Your task to perform on an android device: turn off notifications in google photos Image 0: 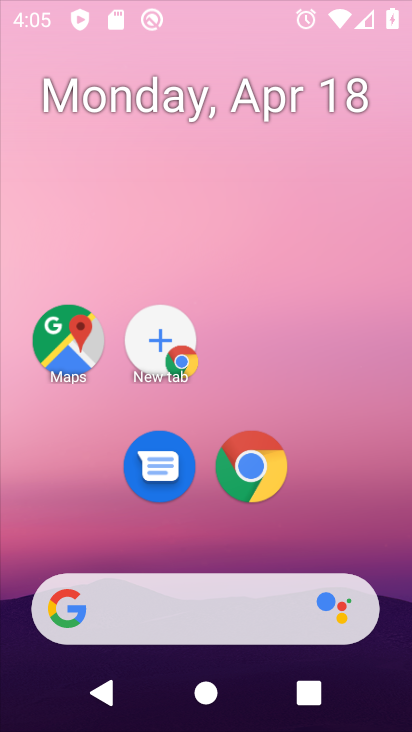
Step 0: click (269, 16)
Your task to perform on an android device: turn off notifications in google photos Image 1: 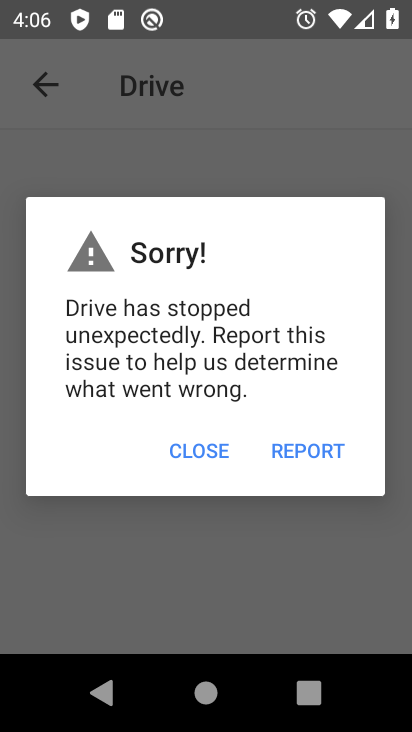
Step 1: press home button
Your task to perform on an android device: turn off notifications in google photos Image 2: 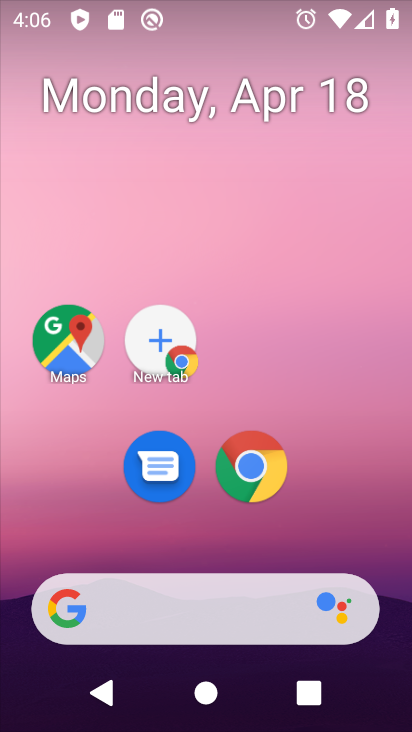
Step 2: drag from (350, 508) to (279, 2)
Your task to perform on an android device: turn off notifications in google photos Image 3: 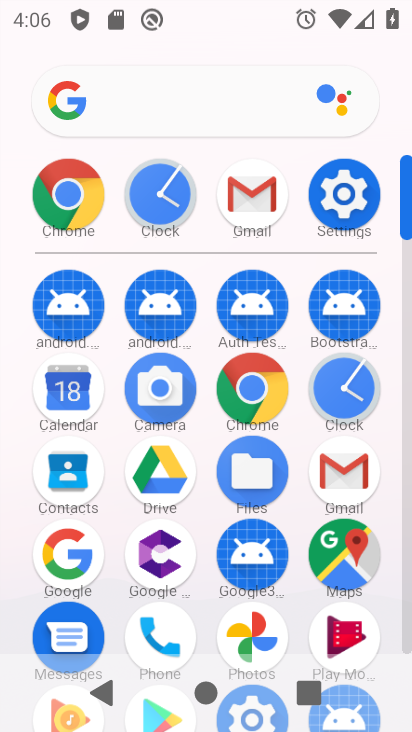
Step 3: click (254, 629)
Your task to perform on an android device: turn off notifications in google photos Image 4: 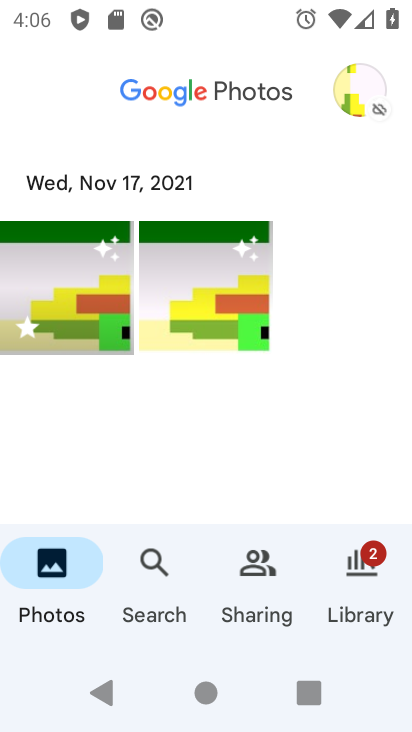
Step 4: click (341, 85)
Your task to perform on an android device: turn off notifications in google photos Image 5: 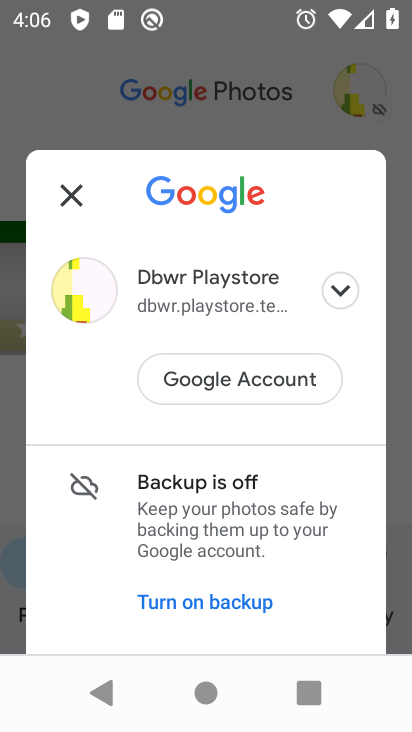
Step 5: drag from (296, 482) to (296, 193)
Your task to perform on an android device: turn off notifications in google photos Image 6: 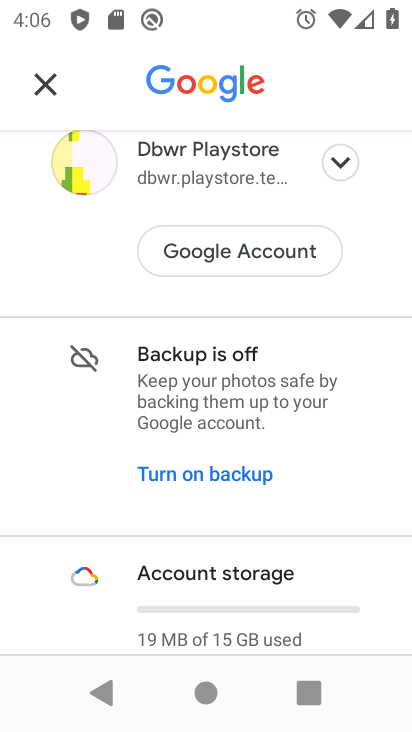
Step 6: drag from (269, 460) to (288, 141)
Your task to perform on an android device: turn off notifications in google photos Image 7: 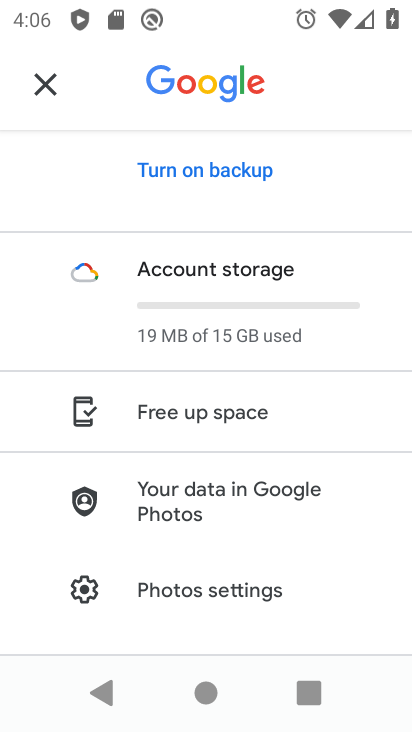
Step 7: click (263, 593)
Your task to perform on an android device: turn off notifications in google photos Image 8: 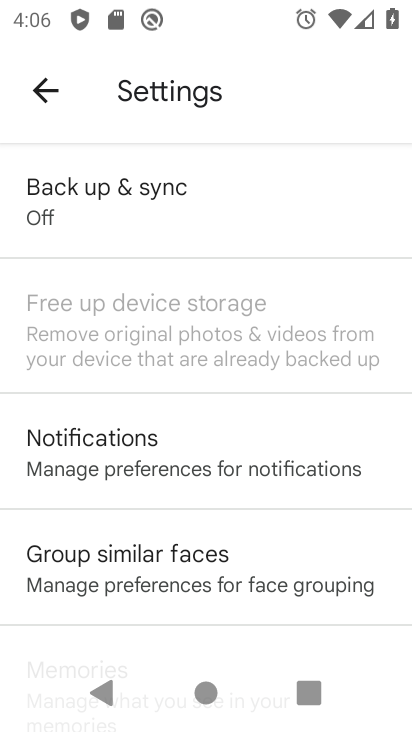
Step 8: click (245, 461)
Your task to perform on an android device: turn off notifications in google photos Image 9: 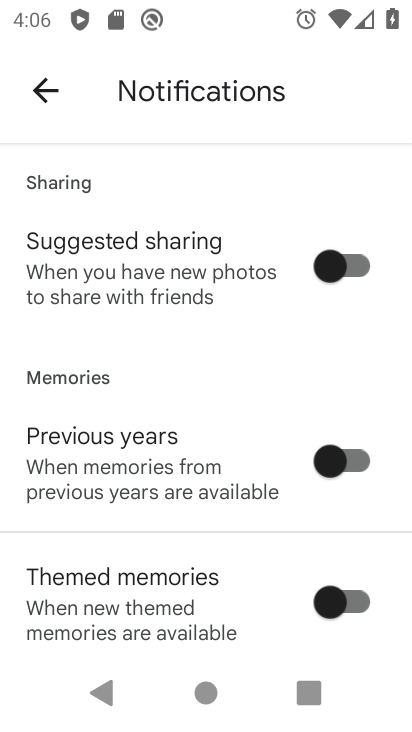
Step 9: drag from (194, 523) to (196, 226)
Your task to perform on an android device: turn off notifications in google photos Image 10: 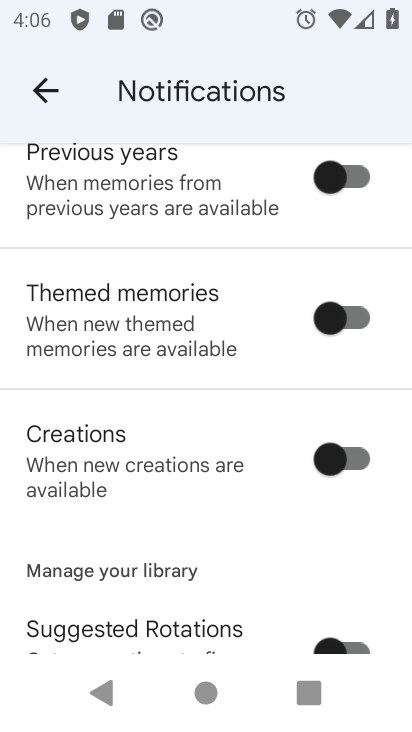
Step 10: drag from (183, 475) to (199, 155)
Your task to perform on an android device: turn off notifications in google photos Image 11: 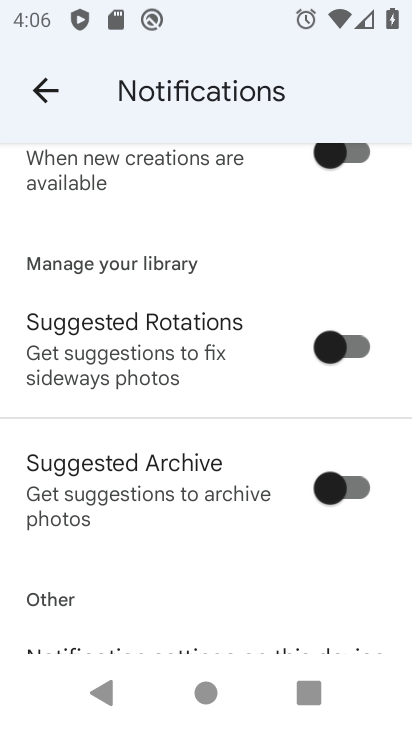
Step 11: drag from (191, 507) to (213, 178)
Your task to perform on an android device: turn off notifications in google photos Image 12: 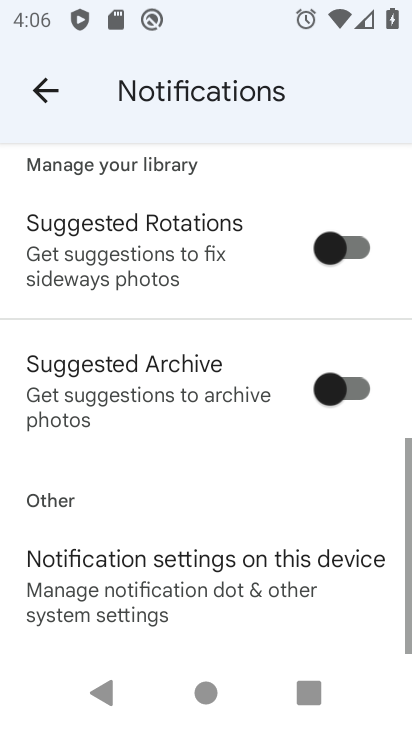
Step 12: click (202, 595)
Your task to perform on an android device: turn off notifications in google photos Image 13: 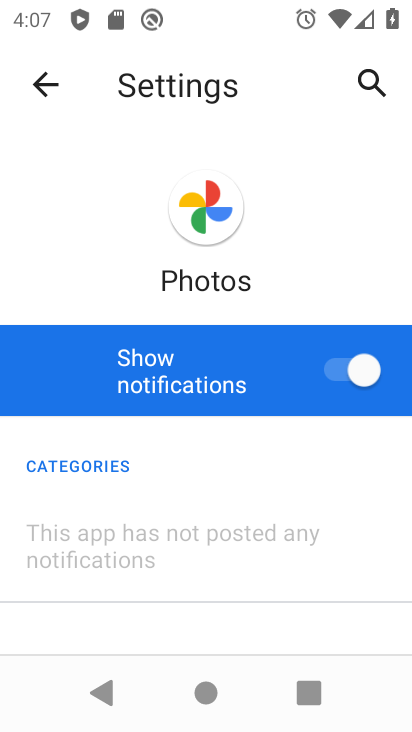
Step 13: click (343, 366)
Your task to perform on an android device: turn off notifications in google photos Image 14: 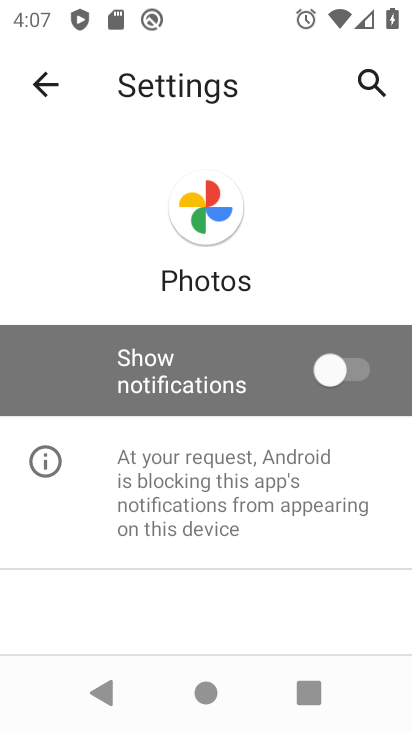
Step 14: task complete